Your task to perform on an android device: Open privacy settings Image 0: 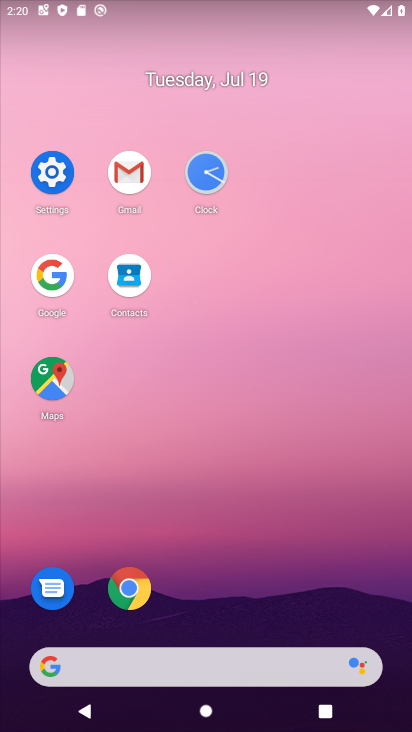
Step 0: click (55, 161)
Your task to perform on an android device: Open privacy settings Image 1: 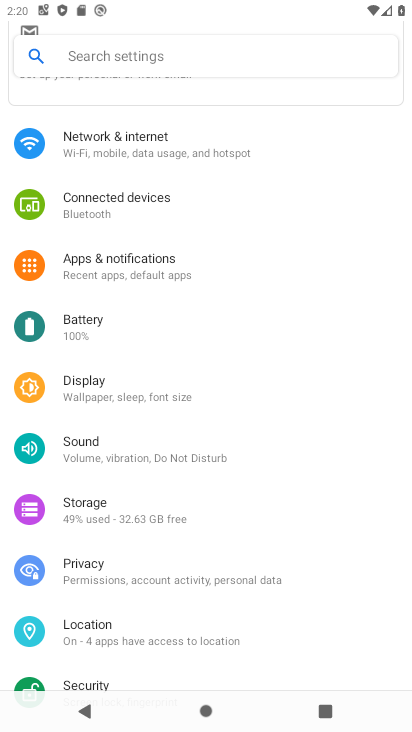
Step 1: click (135, 581)
Your task to perform on an android device: Open privacy settings Image 2: 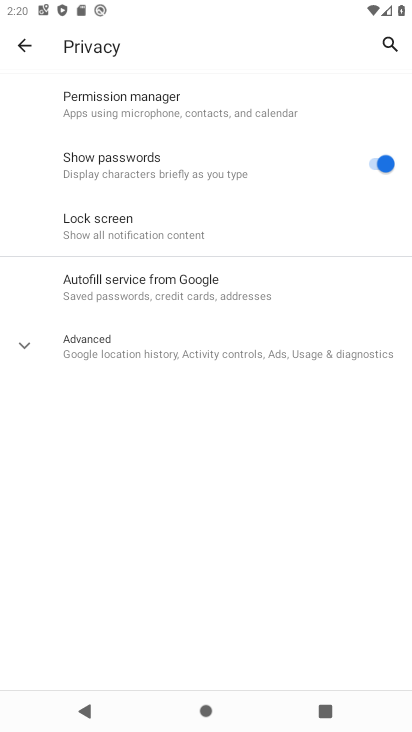
Step 2: task complete